Your task to perform on an android device: Open battery settings Image 0: 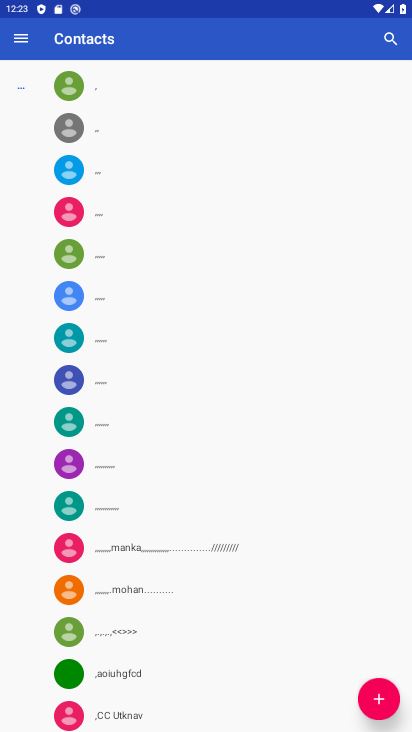
Step 0: press home button
Your task to perform on an android device: Open battery settings Image 1: 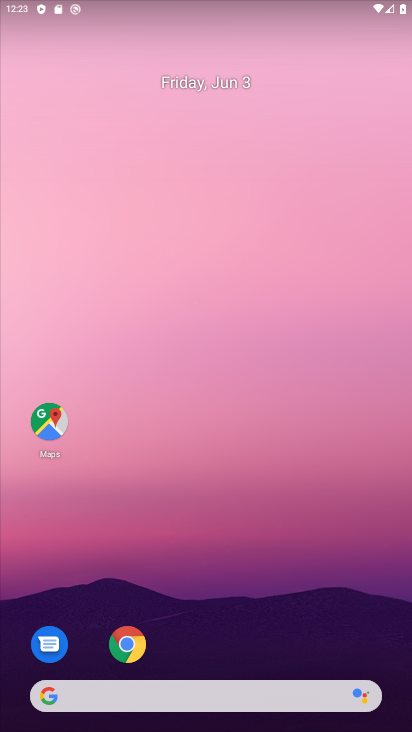
Step 1: drag from (218, 667) to (219, 59)
Your task to perform on an android device: Open battery settings Image 2: 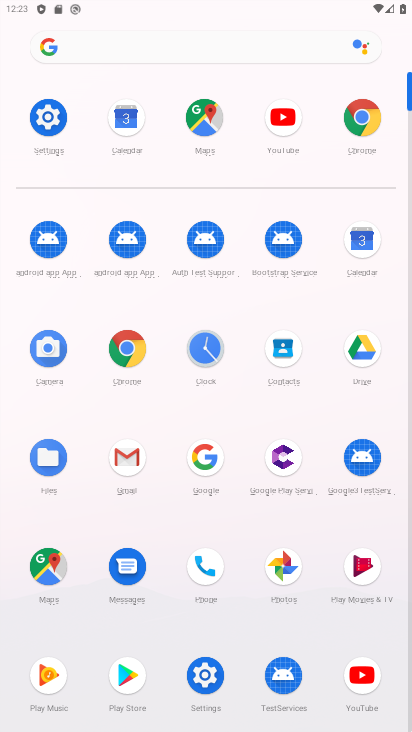
Step 2: click (43, 119)
Your task to perform on an android device: Open battery settings Image 3: 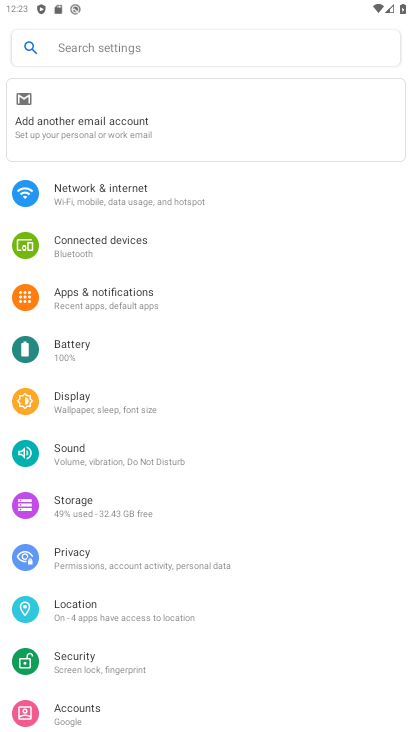
Step 3: click (72, 348)
Your task to perform on an android device: Open battery settings Image 4: 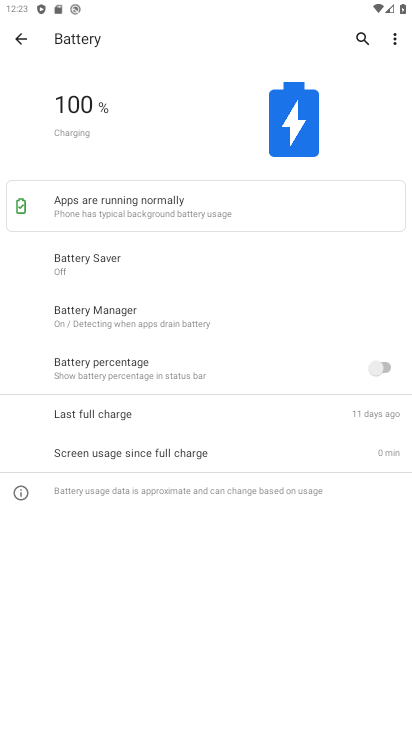
Step 4: task complete